Your task to perform on an android device: check battery use Image 0: 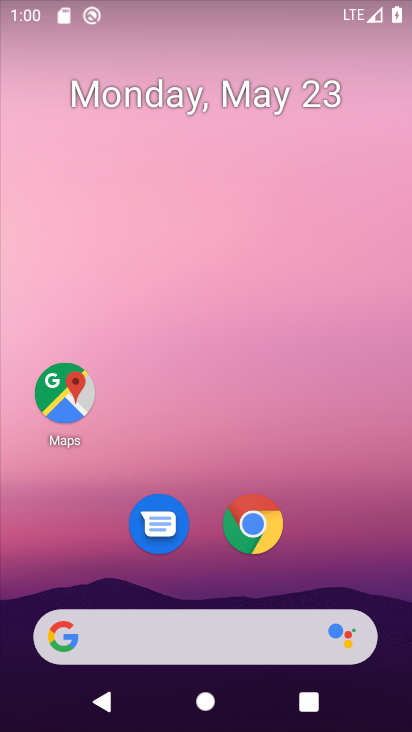
Step 0: drag from (318, 486) to (320, 0)
Your task to perform on an android device: check battery use Image 1: 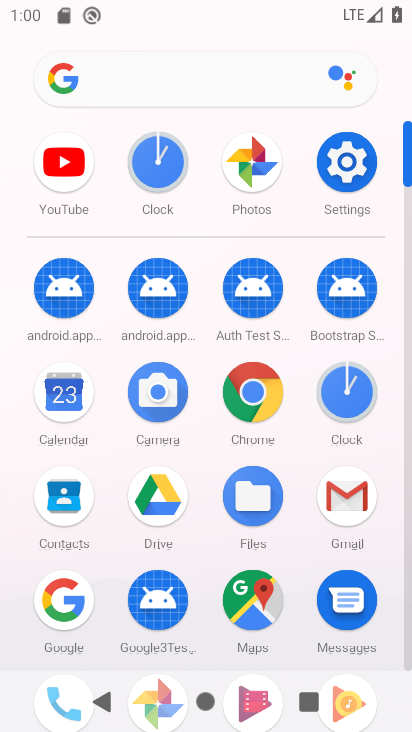
Step 1: click (335, 163)
Your task to perform on an android device: check battery use Image 2: 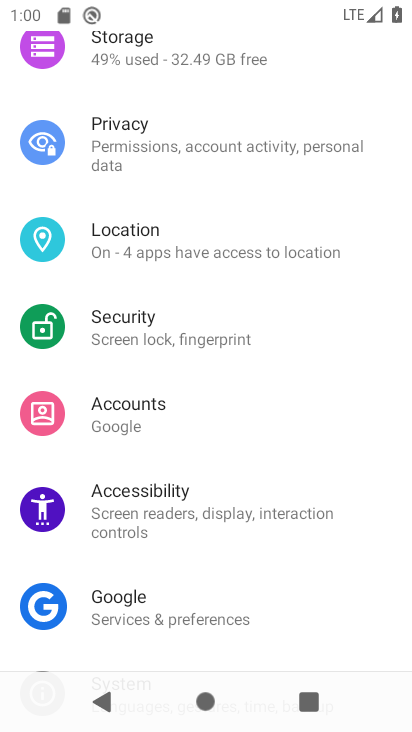
Step 2: drag from (191, 164) to (175, 617)
Your task to perform on an android device: check battery use Image 3: 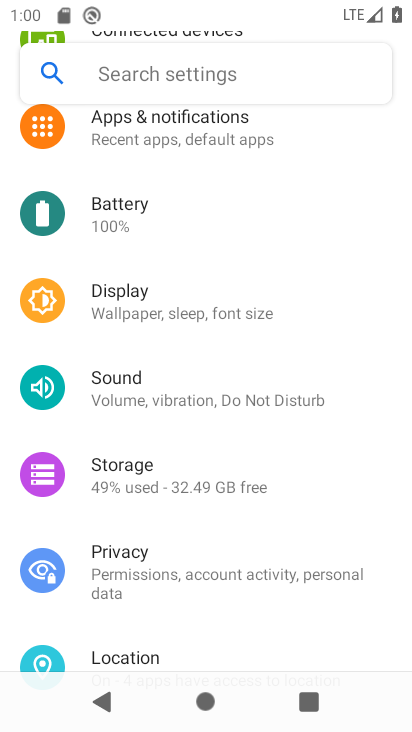
Step 3: click (208, 213)
Your task to perform on an android device: check battery use Image 4: 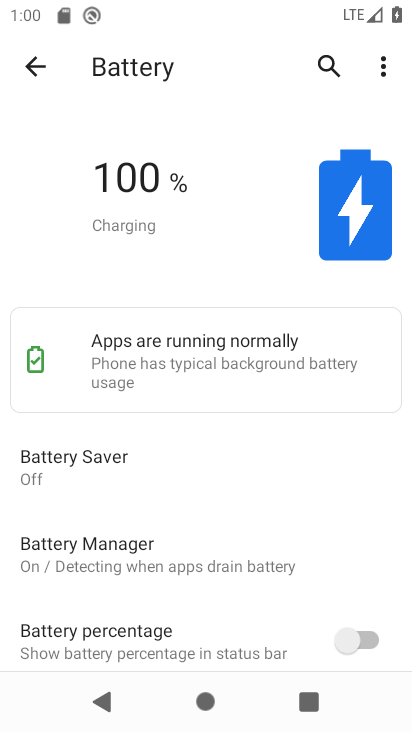
Step 4: task complete